Your task to perform on an android device: Check the weather Image 0: 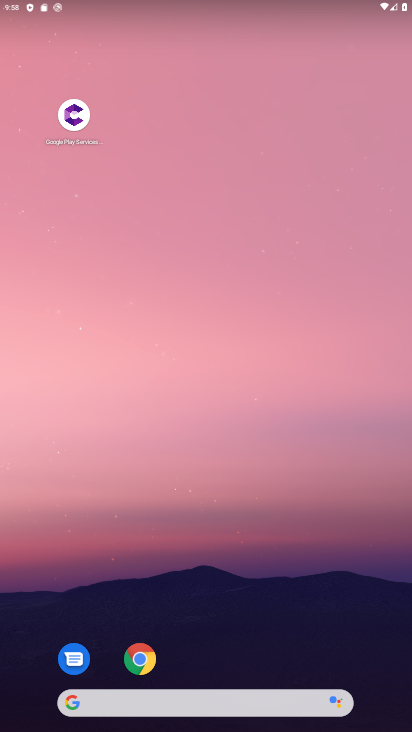
Step 0: drag from (260, 335) to (265, 14)
Your task to perform on an android device: Check the weather Image 1: 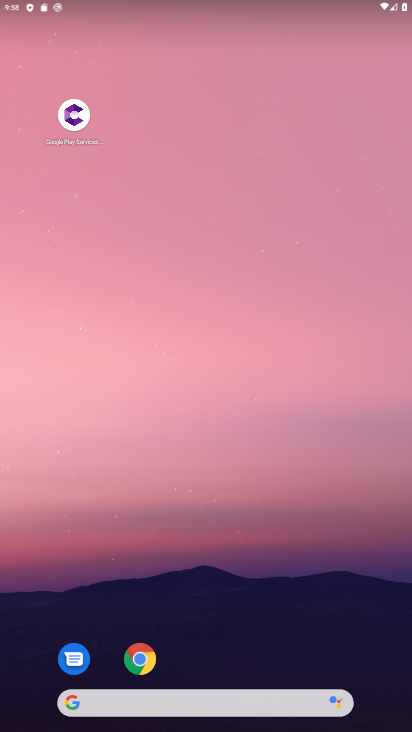
Step 1: drag from (202, 665) to (268, 4)
Your task to perform on an android device: Check the weather Image 2: 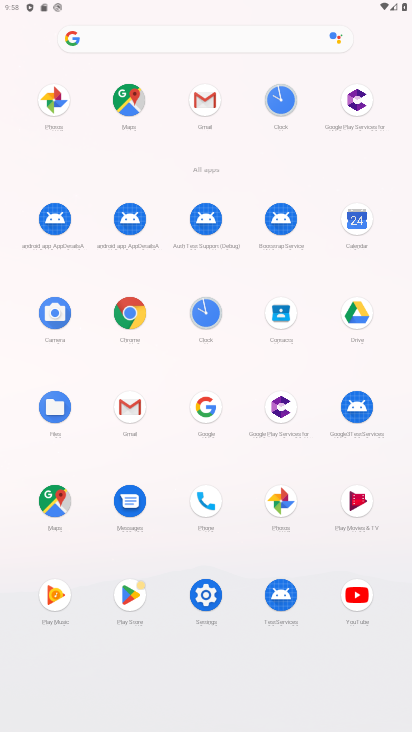
Step 2: click (211, 593)
Your task to perform on an android device: Check the weather Image 3: 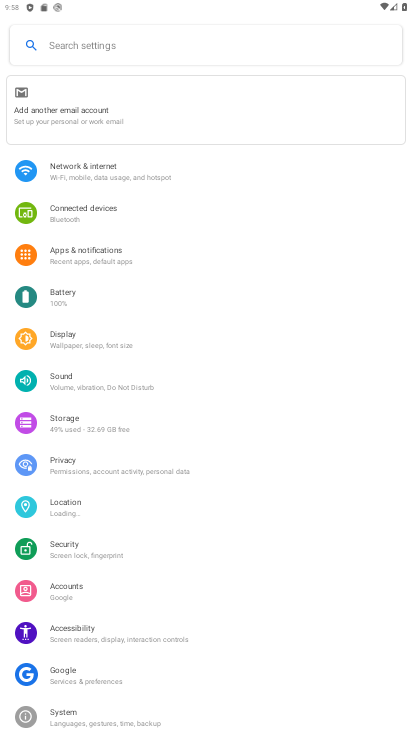
Step 3: click (91, 337)
Your task to perform on an android device: Check the weather Image 4: 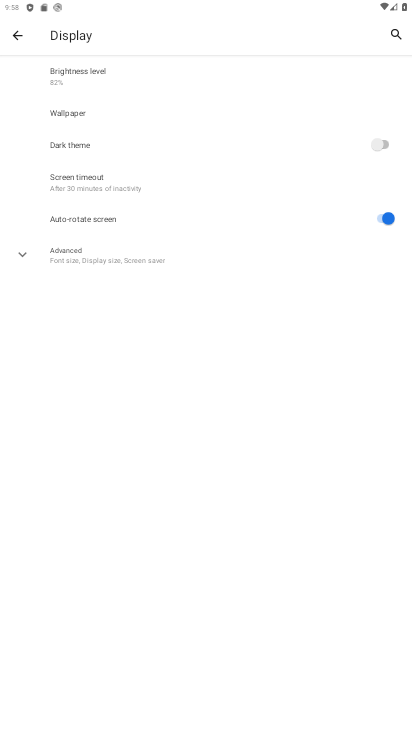
Step 4: click (110, 254)
Your task to perform on an android device: Check the weather Image 5: 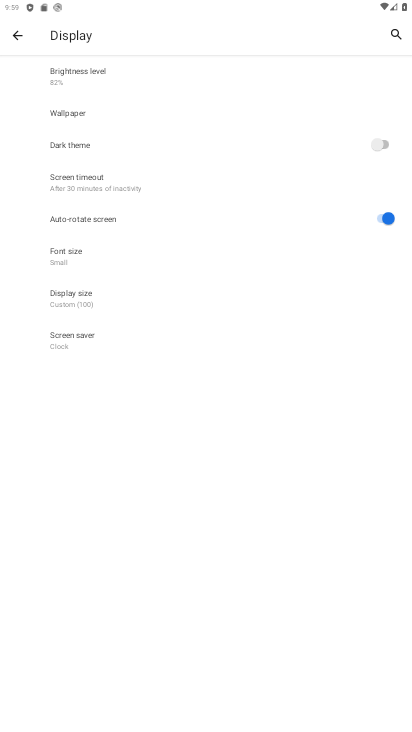
Step 5: click (92, 300)
Your task to perform on an android device: Check the weather Image 6: 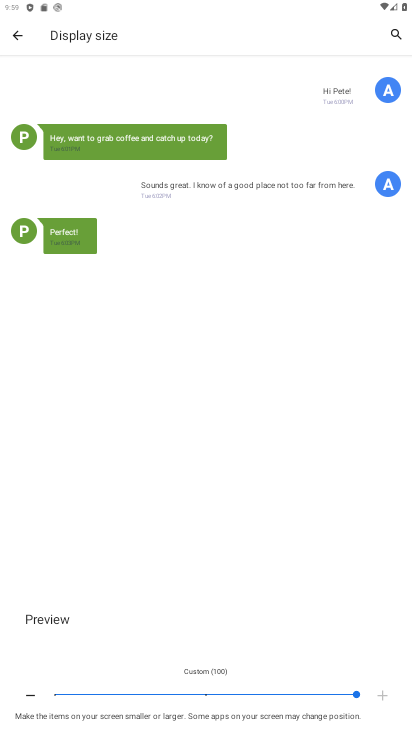
Step 6: click (204, 694)
Your task to perform on an android device: Check the weather Image 7: 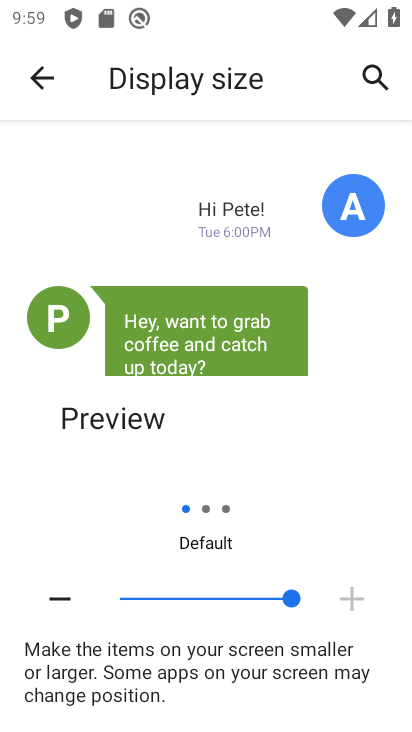
Step 7: click (40, 71)
Your task to perform on an android device: Check the weather Image 8: 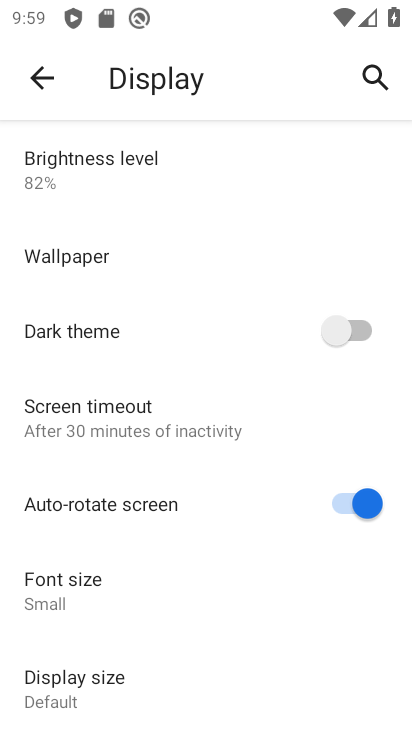
Step 8: press back button
Your task to perform on an android device: Check the weather Image 9: 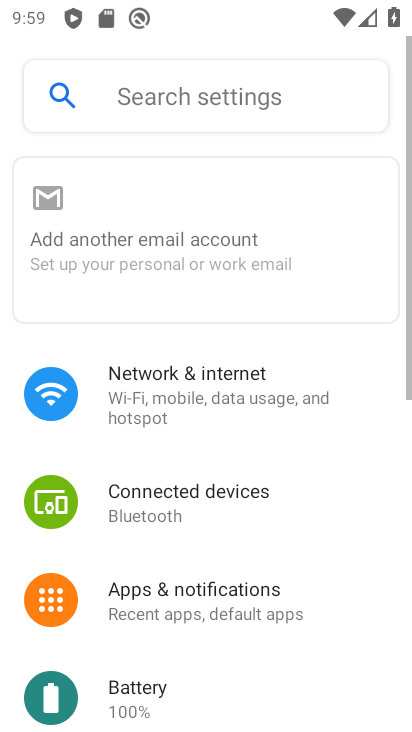
Step 9: press back button
Your task to perform on an android device: Check the weather Image 10: 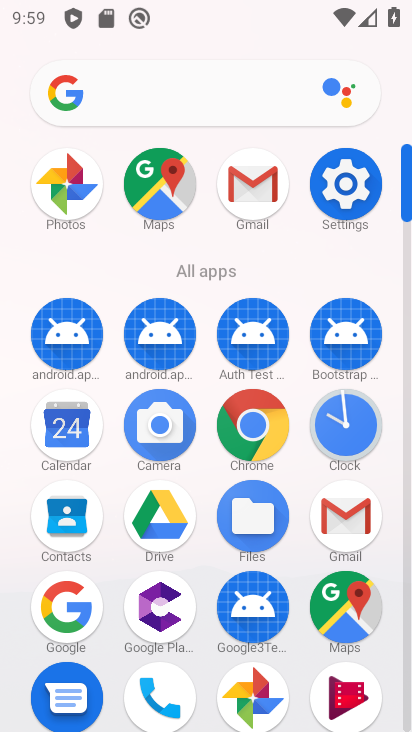
Step 10: click (139, 98)
Your task to perform on an android device: Check the weather Image 11: 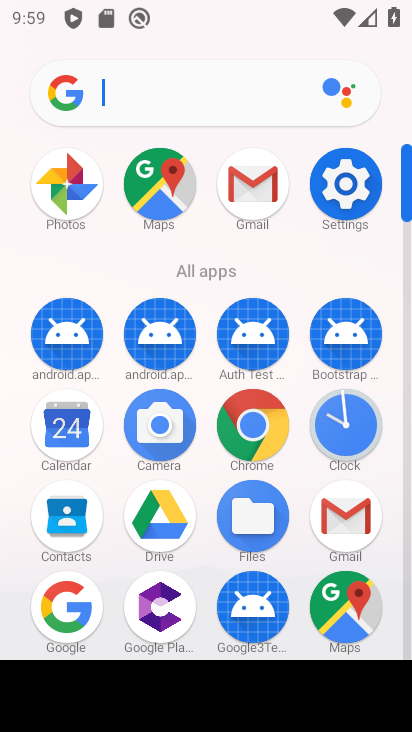
Step 11: type "weather"
Your task to perform on an android device: Check the weather Image 12: 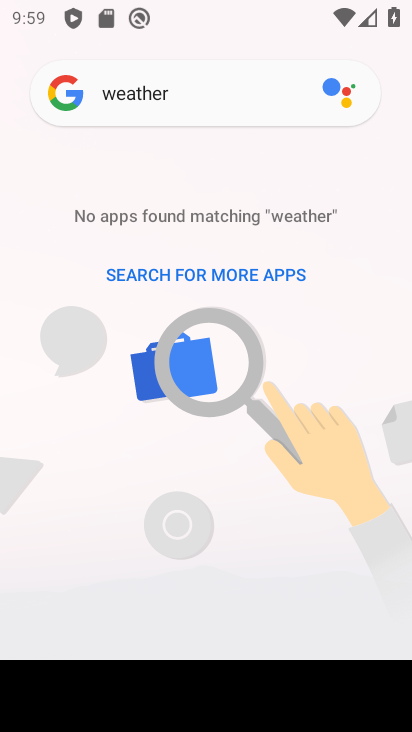
Step 12: drag from (222, 213) to (157, 640)
Your task to perform on an android device: Check the weather Image 13: 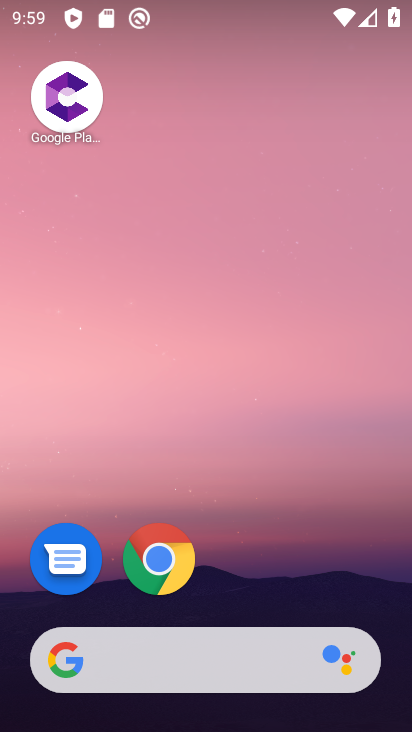
Step 13: click (192, 670)
Your task to perform on an android device: Check the weather Image 14: 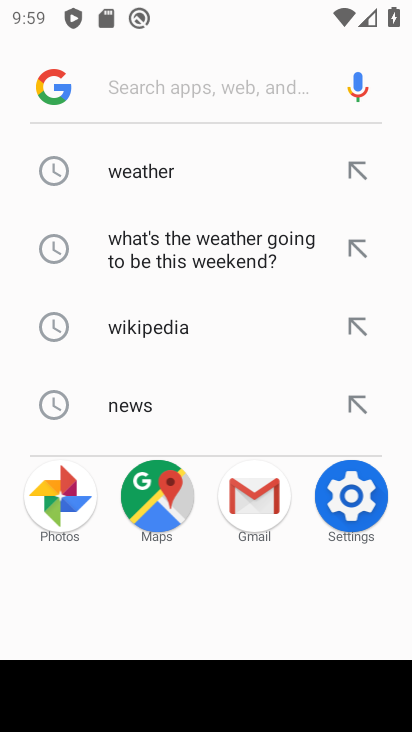
Step 14: click (135, 150)
Your task to perform on an android device: Check the weather Image 15: 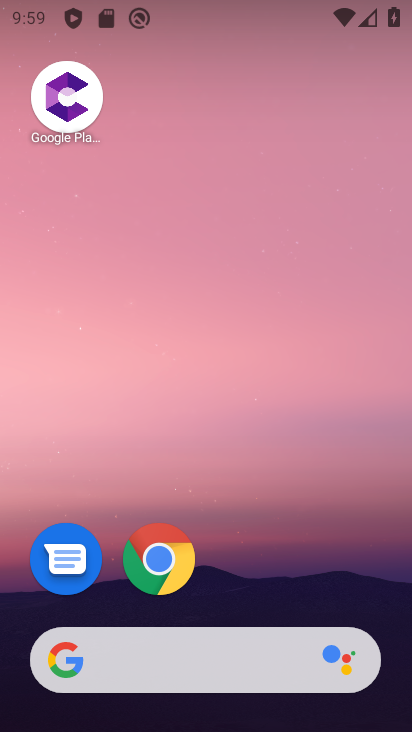
Step 15: click (168, 650)
Your task to perform on an android device: Check the weather Image 16: 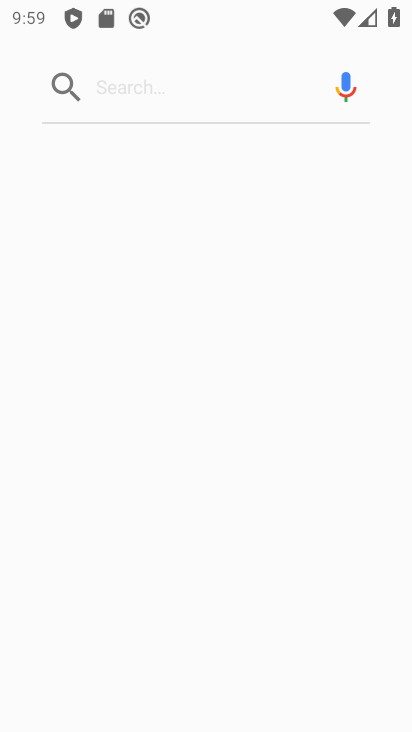
Step 16: click (160, 91)
Your task to perform on an android device: Check the weather Image 17: 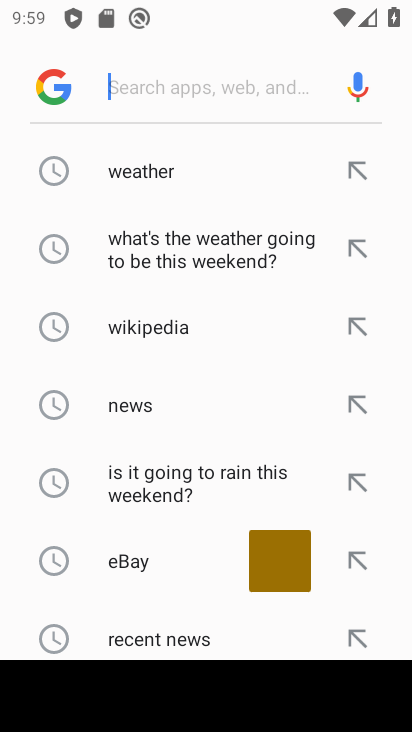
Step 17: click (179, 91)
Your task to perform on an android device: Check the weather Image 18: 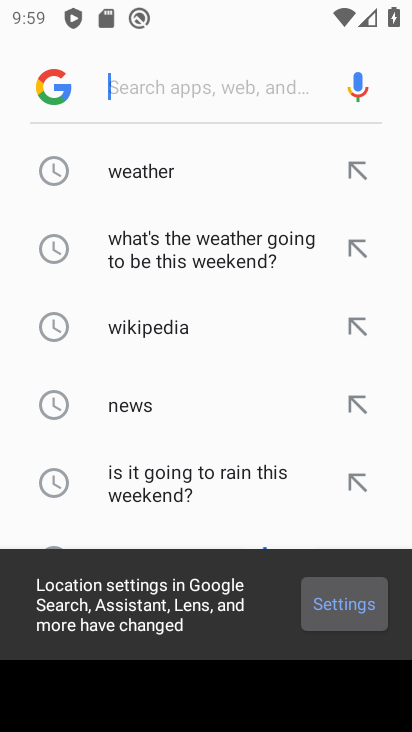
Step 18: click (168, 178)
Your task to perform on an android device: Check the weather Image 19: 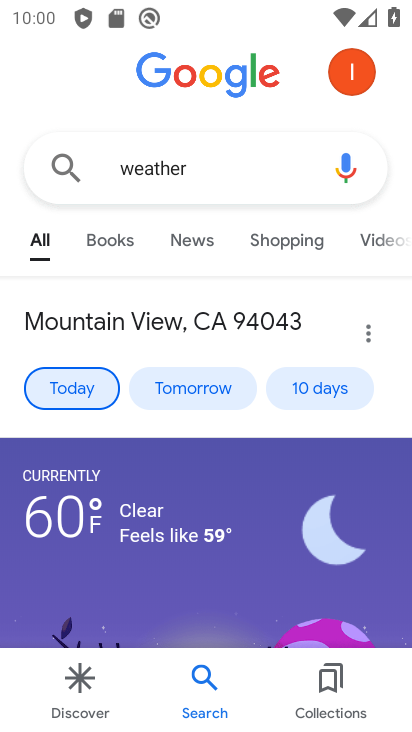
Step 19: task complete